Your task to perform on an android device: change notifications settings Image 0: 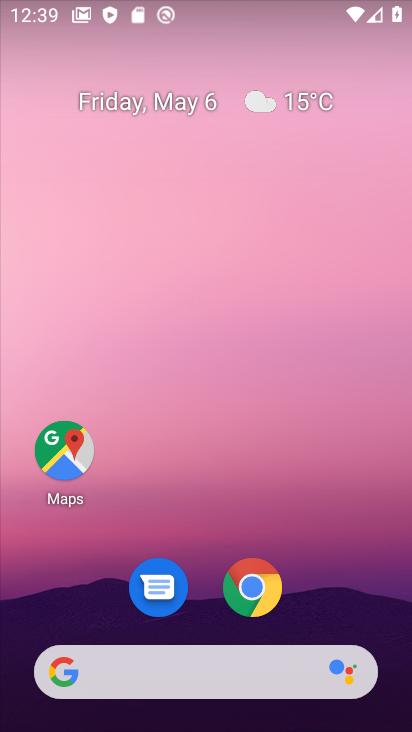
Step 0: drag from (309, 488) to (245, 119)
Your task to perform on an android device: change notifications settings Image 1: 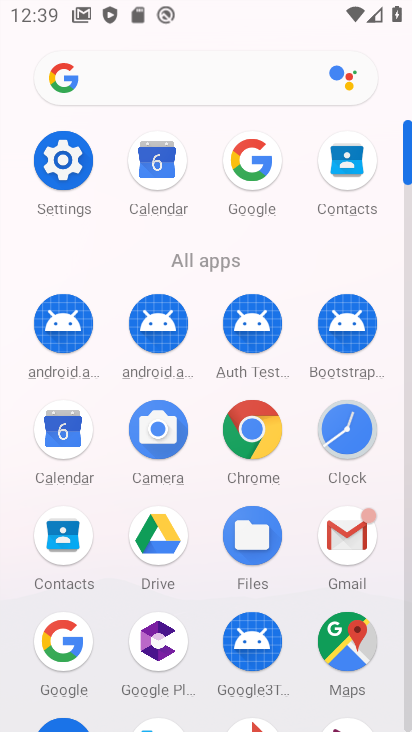
Step 1: click (51, 164)
Your task to perform on an android device: change notifications settings Image 2: 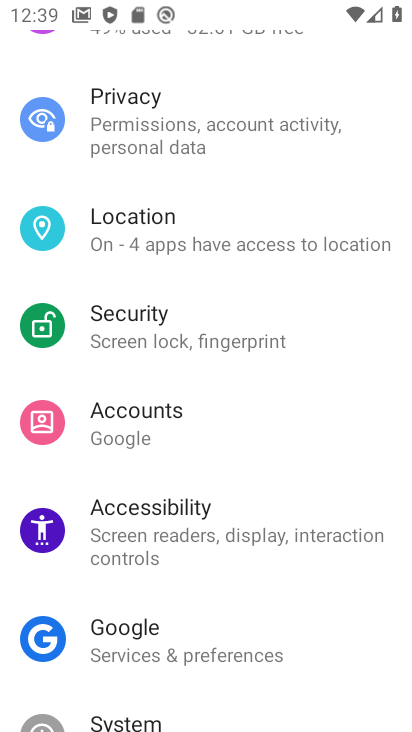
Step 2: drag from (263, 167) to (258, 520)
Your task to perform on an android device: change notifications settings Image 3: 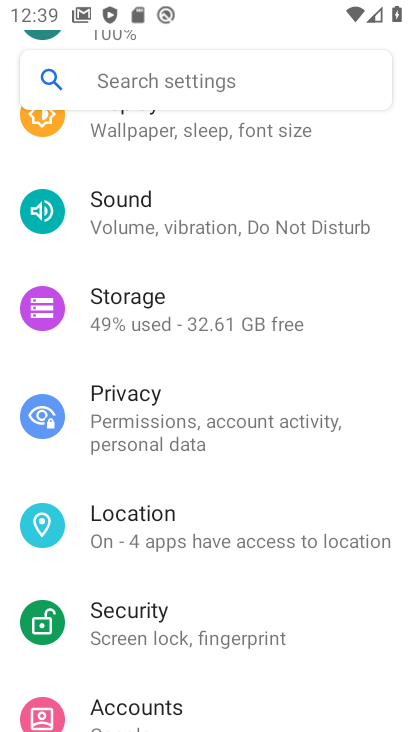
Step 3: drag from (187, 179) to (184, 447)
Your task to perform on an android device: change notifications settings Image 4: 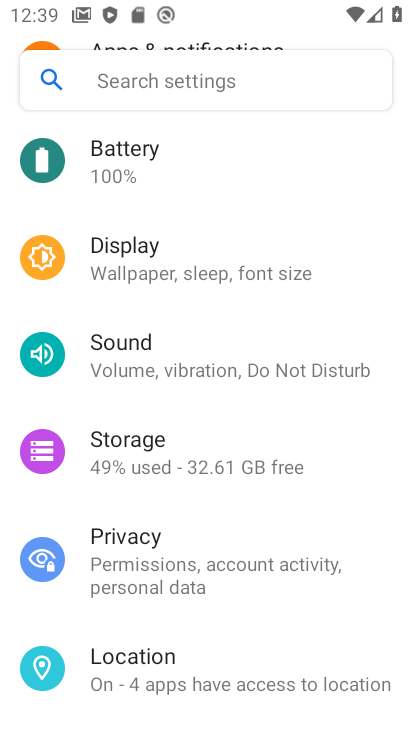
Step 4: drag from (166, 295) to (160, 504)
Your task to perform on an android device: change notifications settings Image 5: 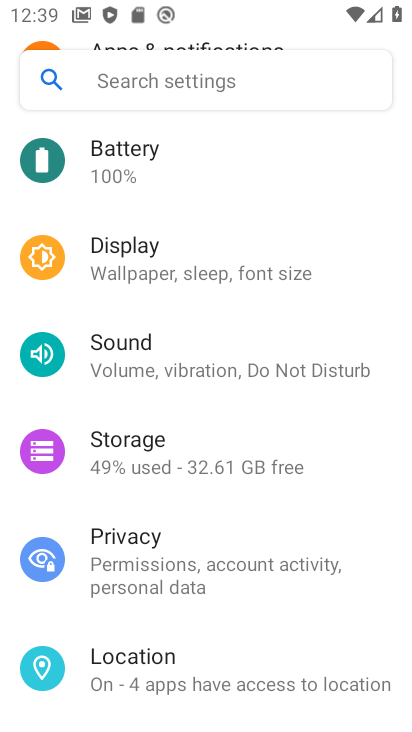
Step 5: drag from (212, 328) to (216, 588)
Your task to perform on an android device: change notifications settings Image 6: 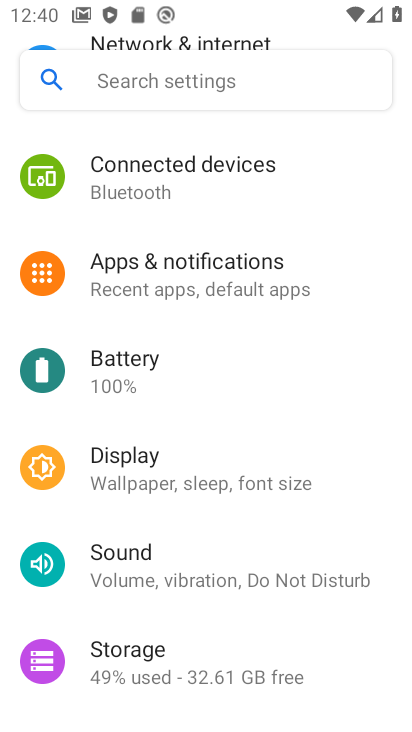
Step 6: click (124, 267)
Your task to perform on an android device: change notifications settings Image 7: 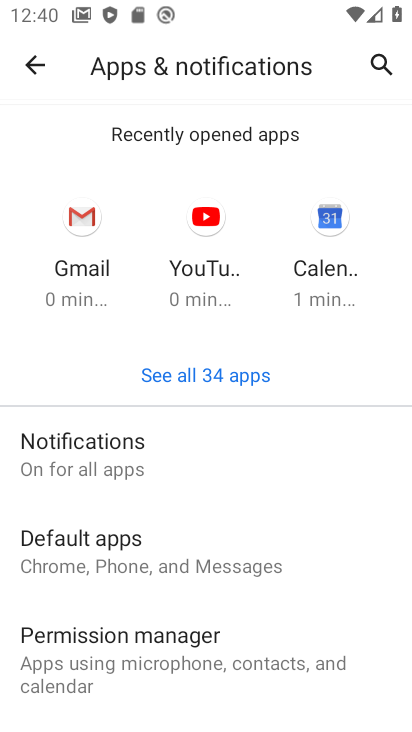
Step 7: drag from (150, 277) to (154, 141)
Your task to perform on an android device: change notifications settings Image 8: 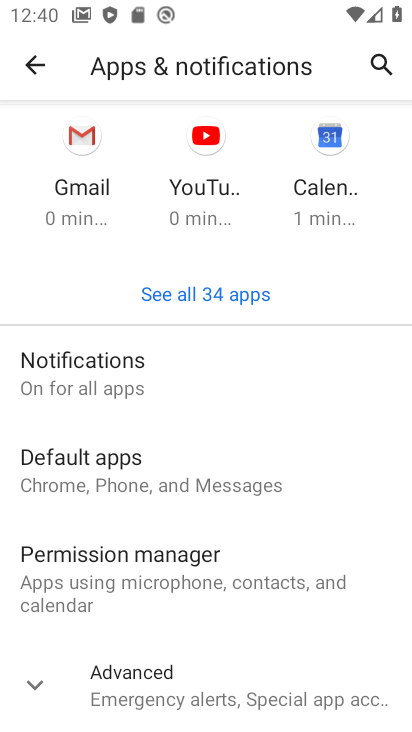
Step 8: click (70, 375)
Your task to perform on an android device: change notifications settings Image 9: 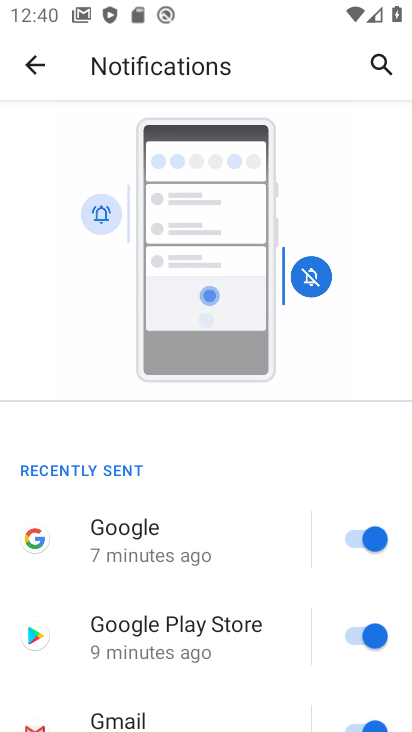
Step 9: drag from (232, 464) to (260, 274)
Your task to perform on an android device: change notifications settings Image 10: 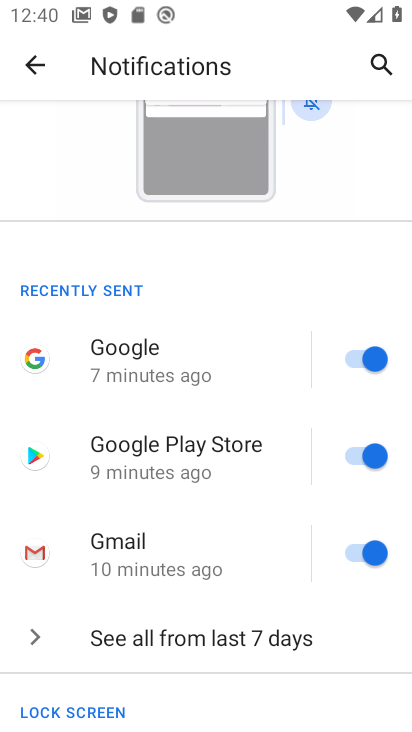
Step 10: drag from (199, 593) to (271, 258)
Your task to perform on an android device: change notifications settings Image 11: 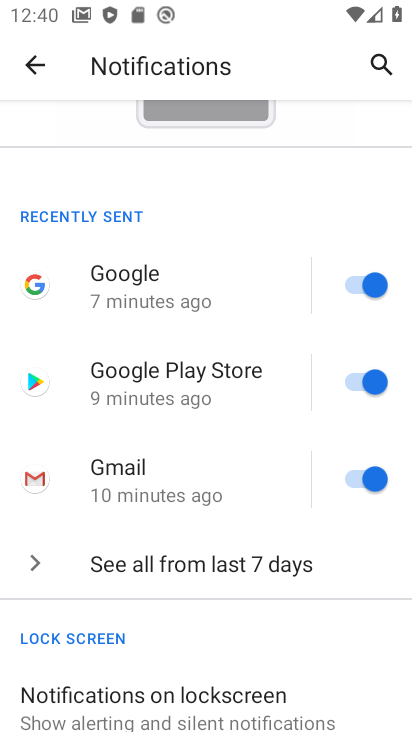
Step 11: drag from (200, 409) to (230, 306)
Your task to perform on an android device: change notifications settings Image 12: 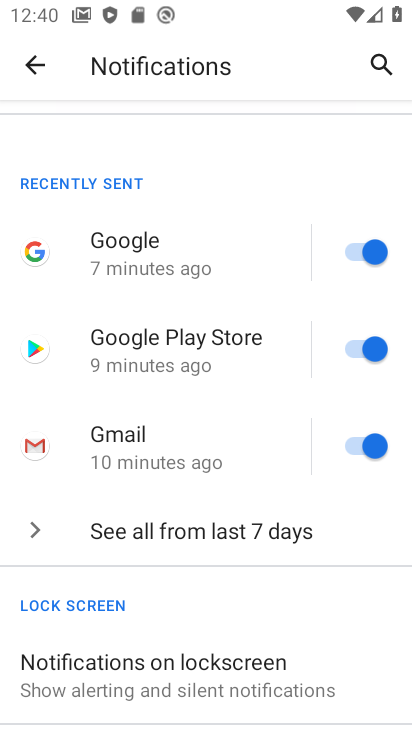
Step 12: drag from (165, 673) to (245, 359)
Your task to perform on an android device: change notifications settings Image 13: 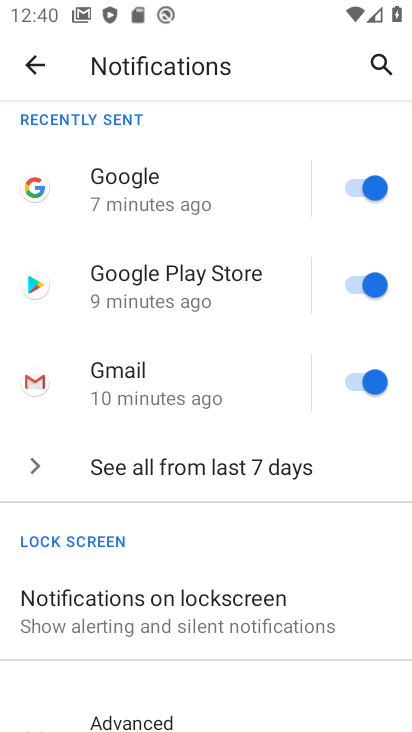
Step 13: click (137, 616)
Your task to perform on an android device: change notifications settings Image 14: 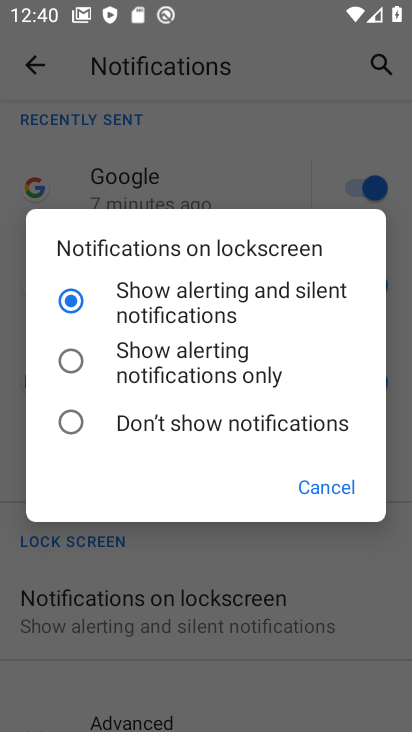
Step 14: click (81, 423)
Your task to perform on an android device: change notifications settings Image 15: 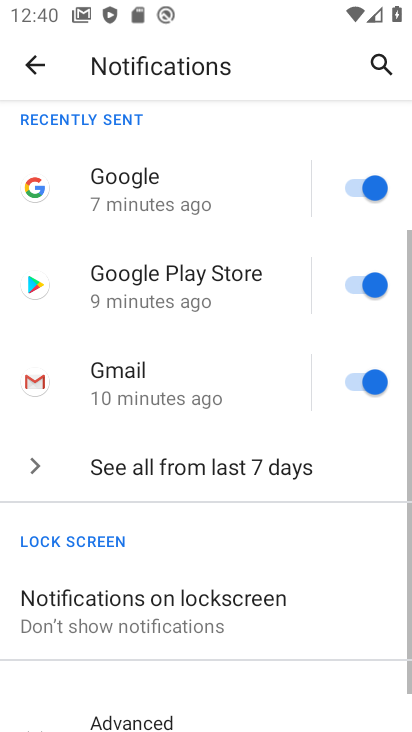
Step 15: task complete